Your task to perform on an android device: set the stopwatch Image 0: 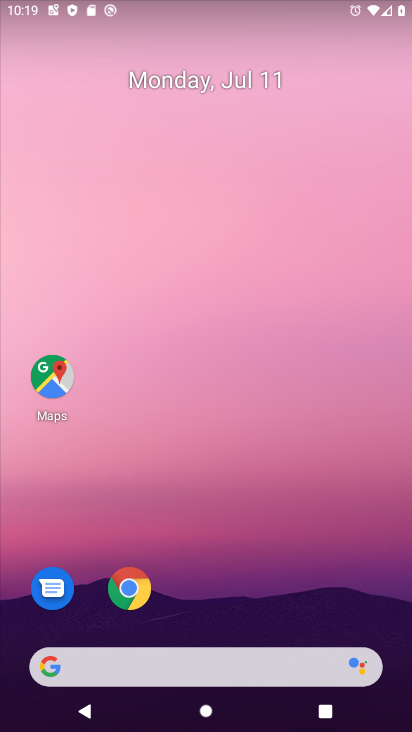
Step 0: drag from (272, 604) to (282, 18)
Your task to perform on an android device: set the stopwatch Image 1: 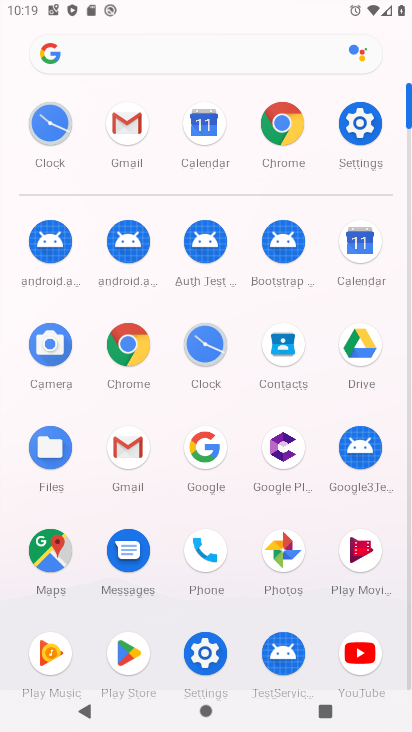
Step 1: click (206, 378)
Your task to perform on an android device: set the stopwatch Image 2: 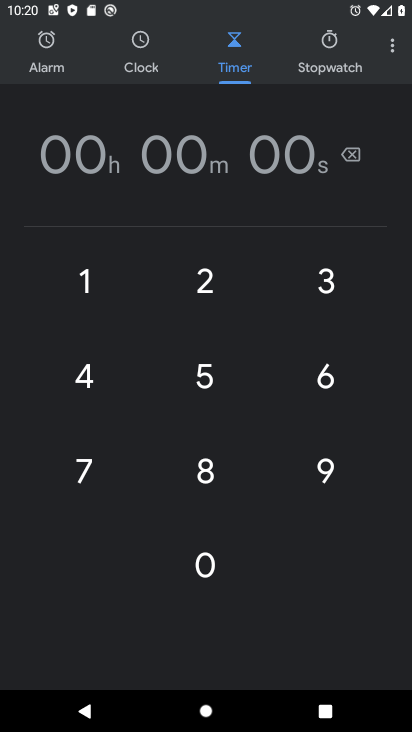
Step 2: click (331, 53)
Your task to perform on an android device: set the stopwatch Image 3: 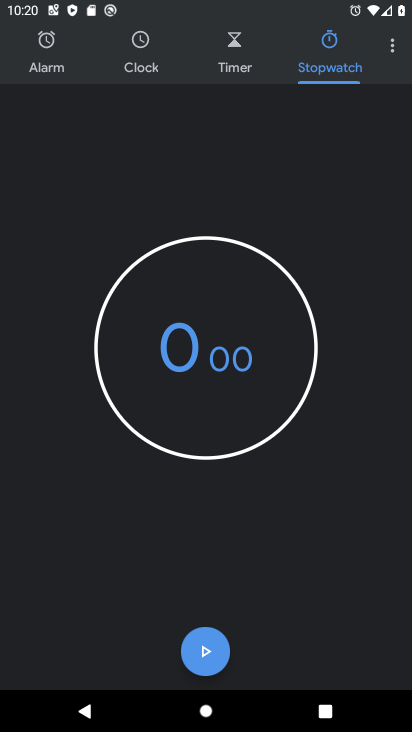
Step 3: click (207, 343)
Your task to perform on an android device: set the stopwatch Image 4: 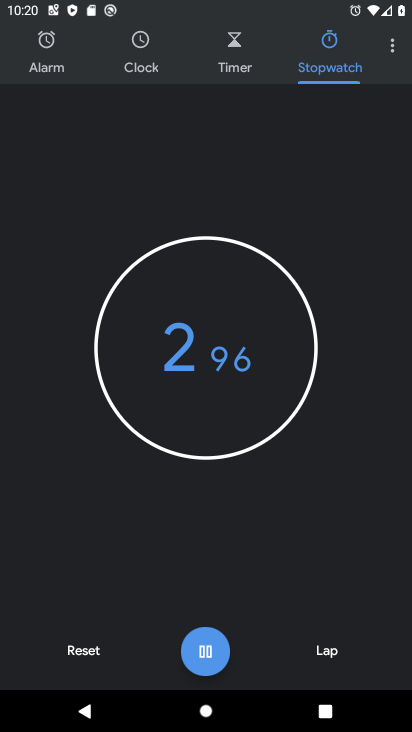
Step 4: click (207, 343)
Your task to perform on an android device: set the stopwatch Image 5: 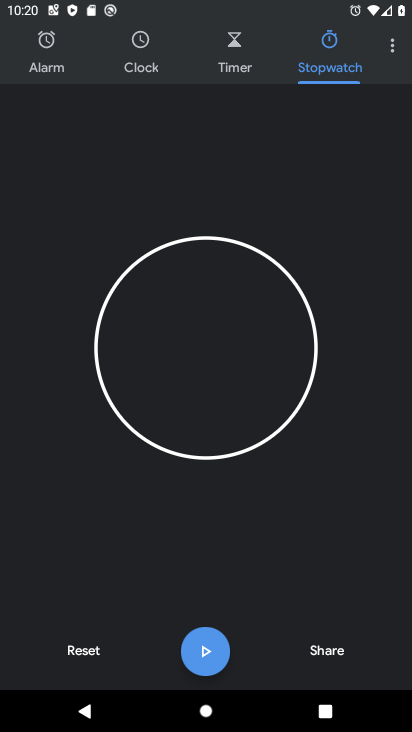
Step 5: task complete